Your task to perform on an android device: star an email in the gmail app Image 0: 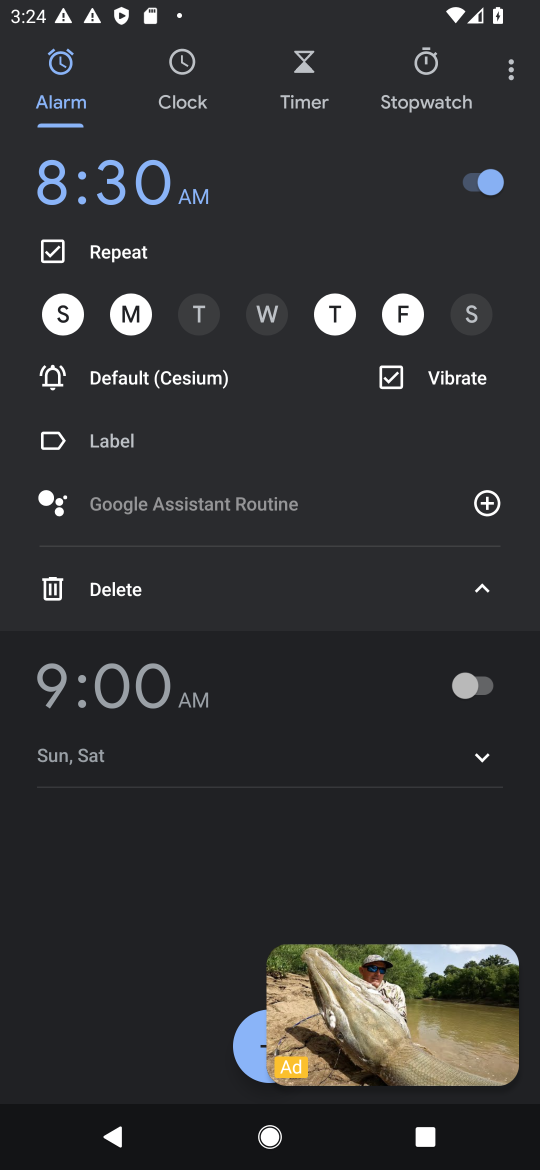
Step 0: click (383, 990)
Your task to perform on an android device: star an email in the gmail app Image 1: 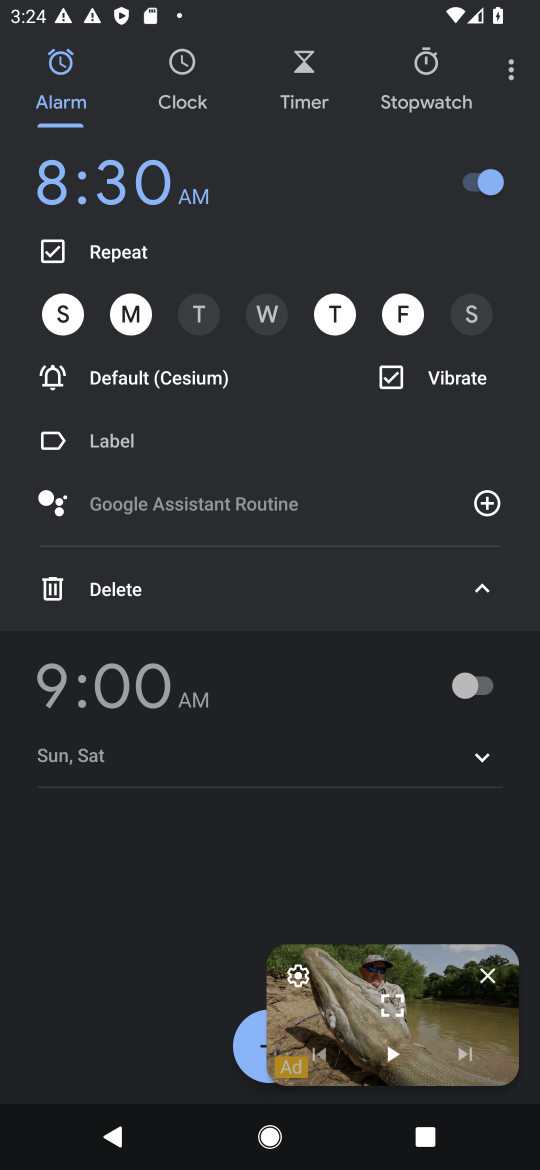
Step 1: click (489, 978)
Your task to perform on an android device: star an email in the gmail app Image 2: 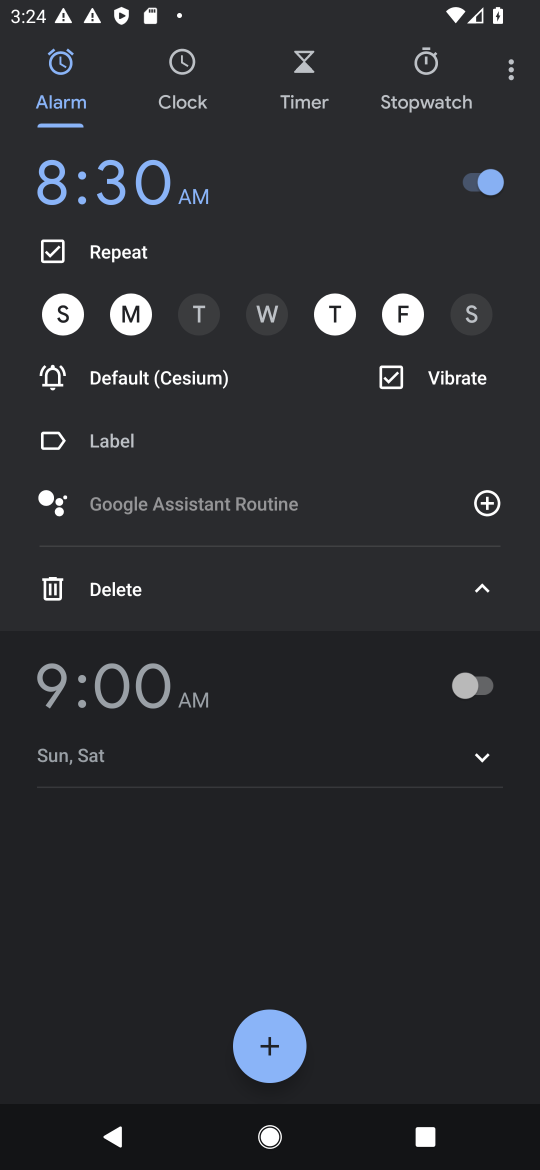
Step 2: press home button
Your task to perform on an android device: star an email in the gmail app Image 3: 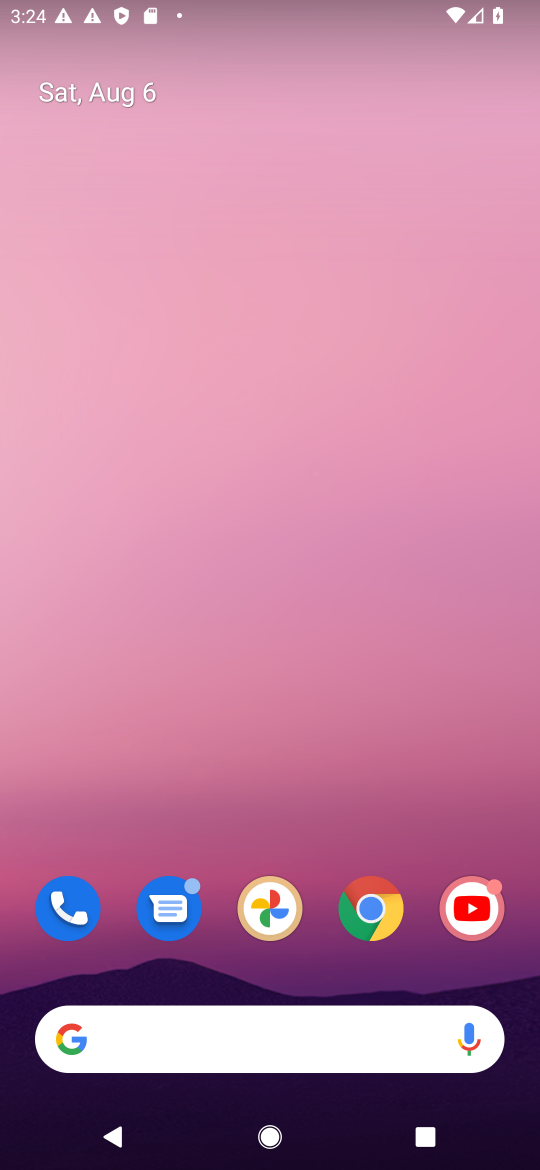
Step 3: drag from (234, 928) to (384, 38)
Your task to perform on an android device: star an email in the gmail app Image 4: 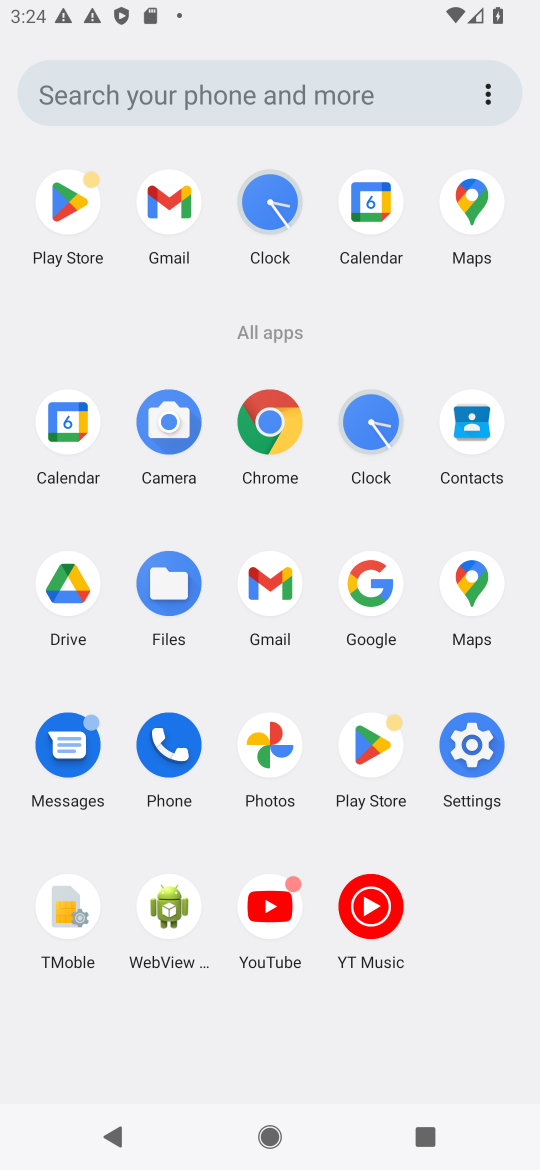
Step 4: click (271, 595)
Your task to perform on an android device: star an email in the gmail app Image 5: 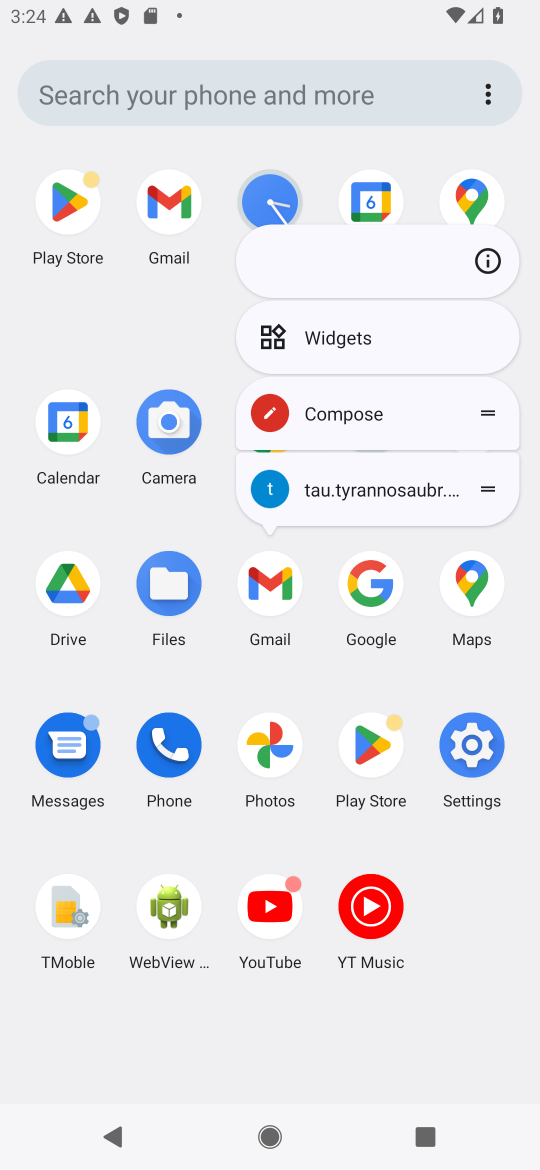
Step 5: click (276, 587)
Your task to perform on an android device: star an email in the gmail app Image 6: 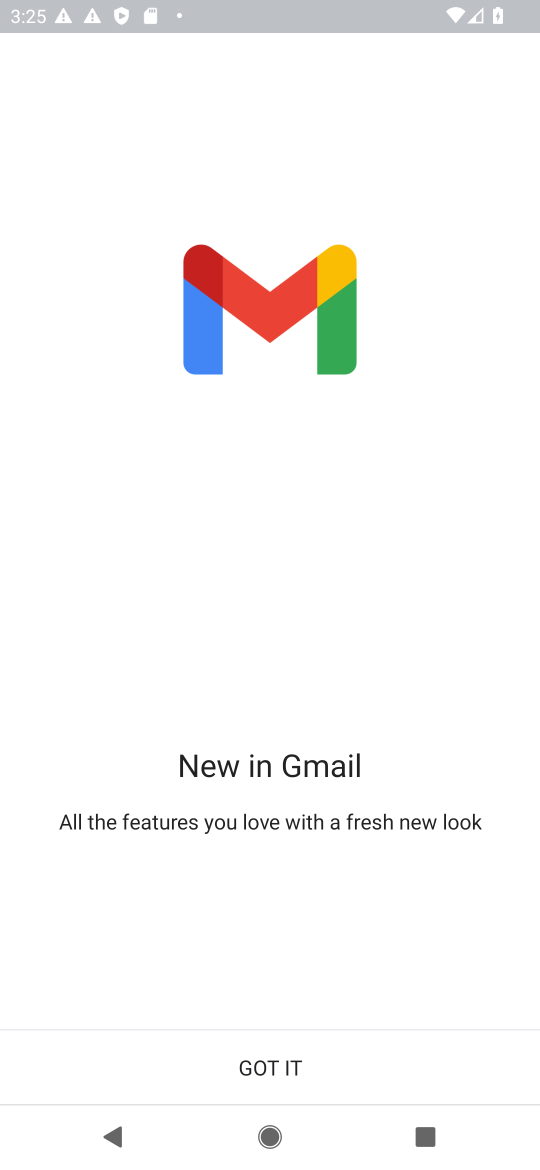
Step 6: click (282, 1067)
Your task to perform on an android device: star an email in the gmail app Image 7: 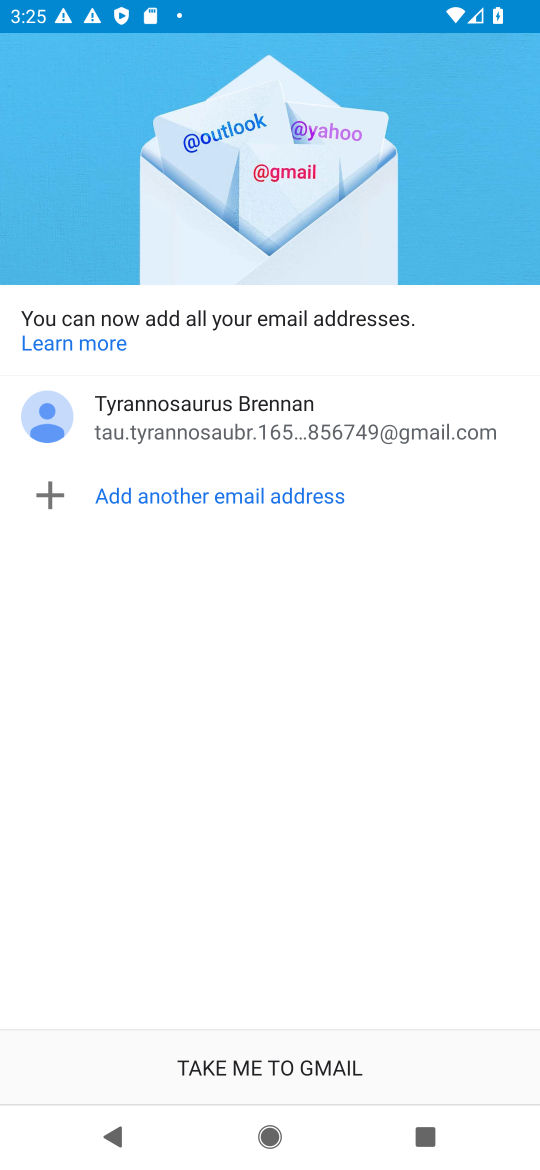
Step 7: click (291, 1071)
Your task to perform on an android device: star an email in the gmail app Image 8: 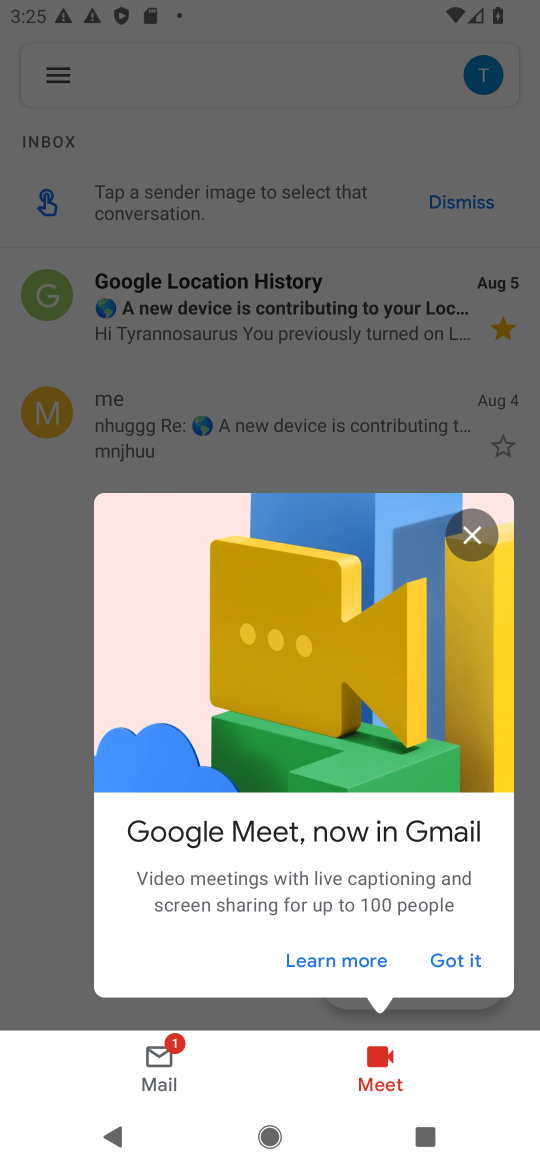
Step 8: click (474, 551)
Your task to perform on an android device: star an email in the gmail app Image 9: 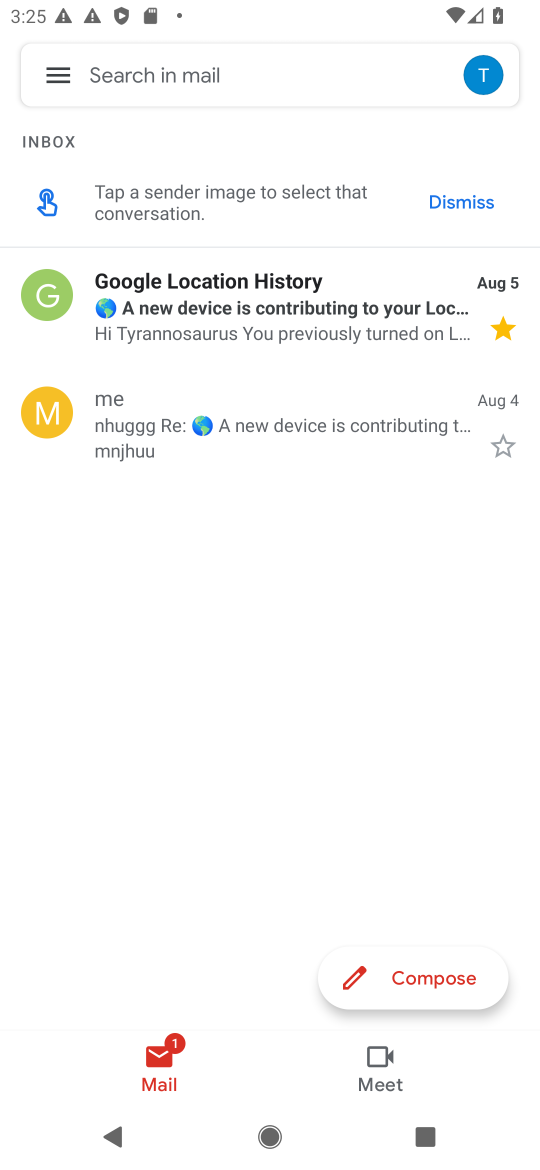
Step 9: click (504, 444)
Your task to perform on an android device: star an email in the gmail app Image 10: 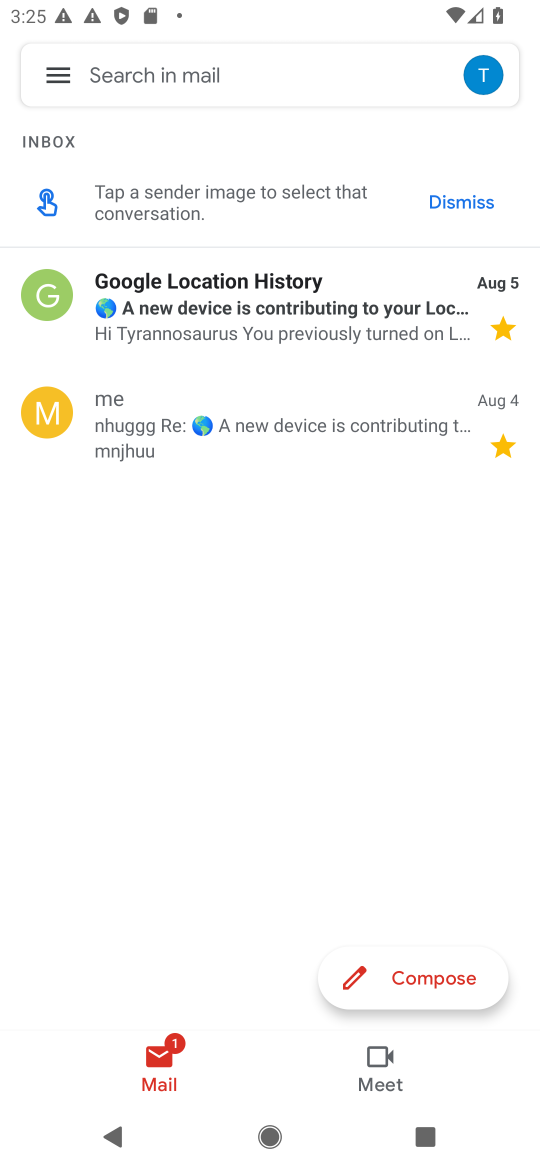
Step 10: task complete